Your task to perform on an android device: change notifications settings Image 0: 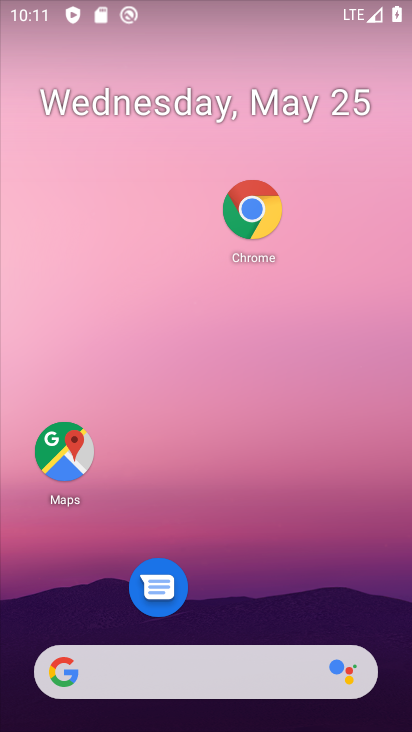
Step 0: drag from (232, 593) to (278, 6)
Your task to perform on an android device: change notifications settings Image 1: 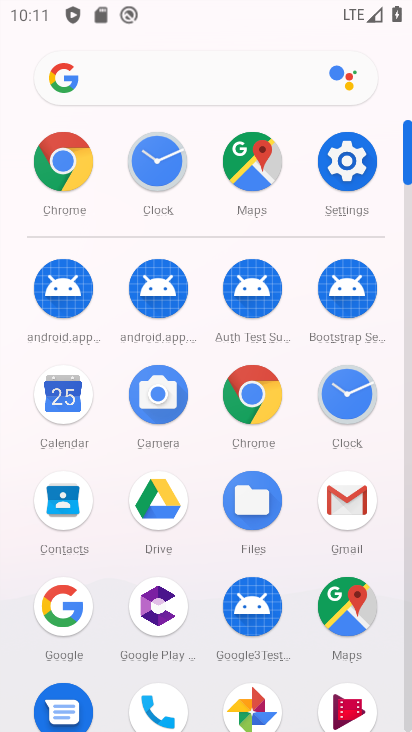
Step 1: click (354, 188)
Your task to perform on an android device: change notifications settings Image 2: 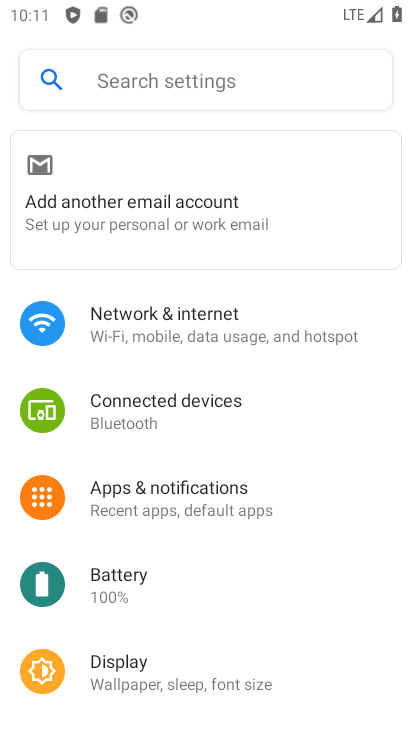
Step 2: click (245, 509)
Your task to perform on an android device: change notifications settings Image 3: 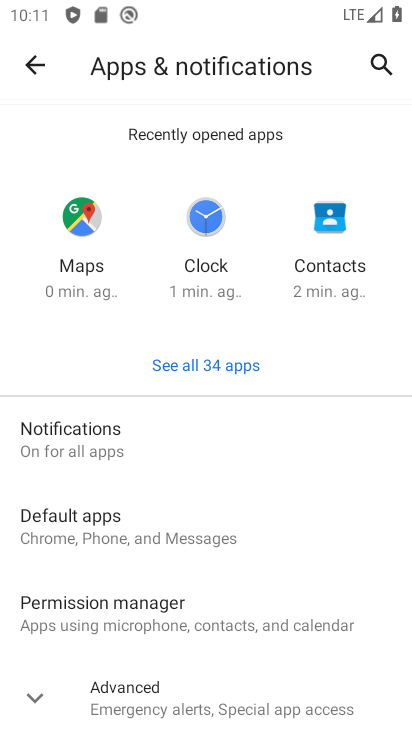
Step 3: click (122, 442)
Your task to perform on an android device: change notifications settings Image 4: 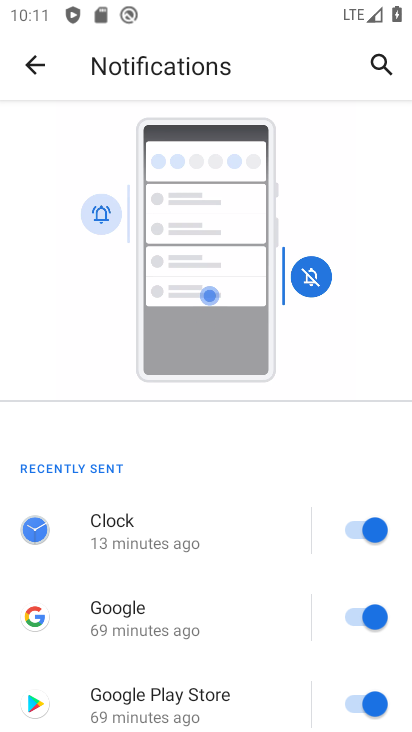
Step 4: drag from (184, 509) to (254, 3)
Your task to perform on an android device: change notifications settings Image 5: 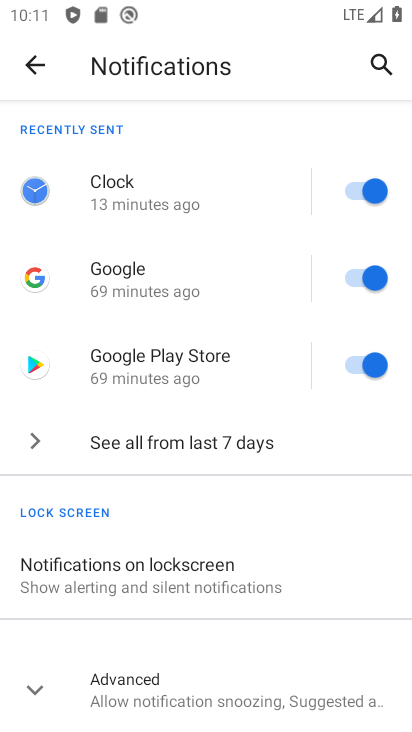
Step 5: click (206, 452)
Your task to perform on an android device: change notifications settings Image 6: 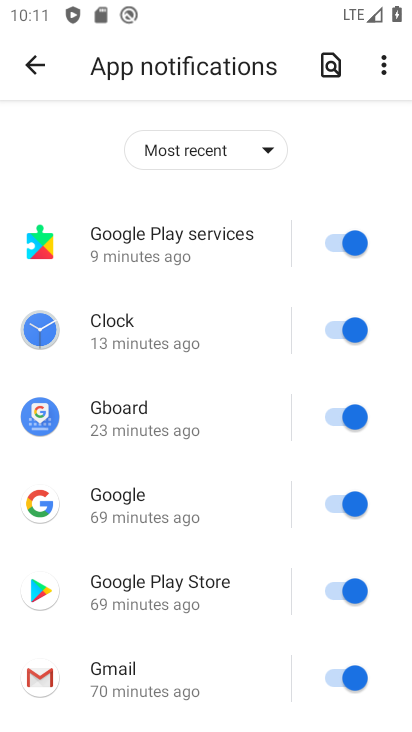
Step 6: click (333, 239)
Your task to perform on an android device: change notifications settings Image 7: 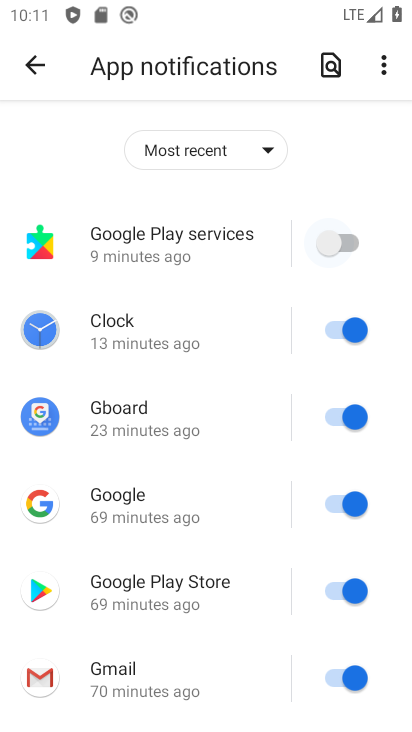
Step 7: click (324, 330)
Your task to perform on an android device: change notifications settings Image 8: 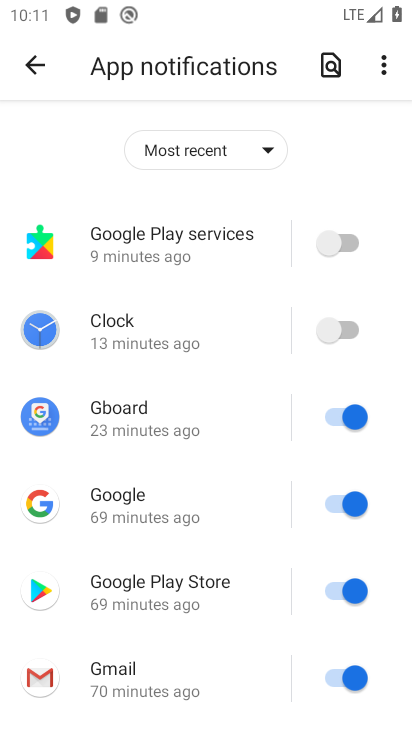
Step 8: click (333, 419)
Your task to perform on an android device: change notifications settings Image 9: 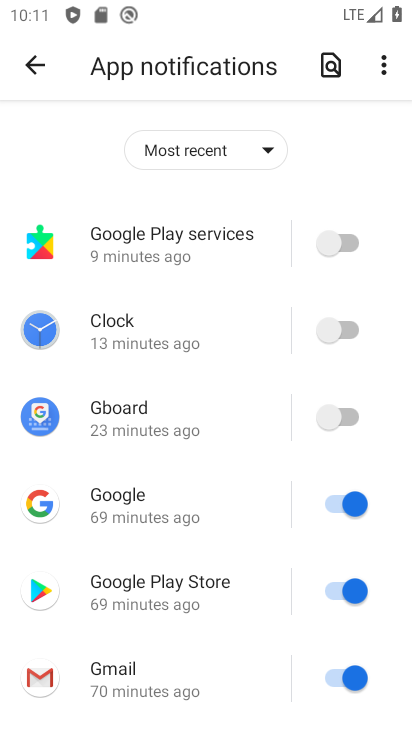
Step 9: click (336, 514)
Your task to perform on an android device: change notifications settings Image 10: 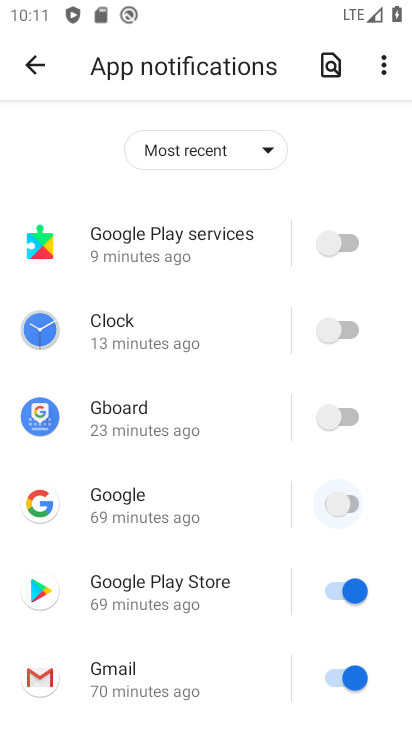
Step 10: click (337, 578)
Your task to perform on an android device: change notifications settings Image 11: 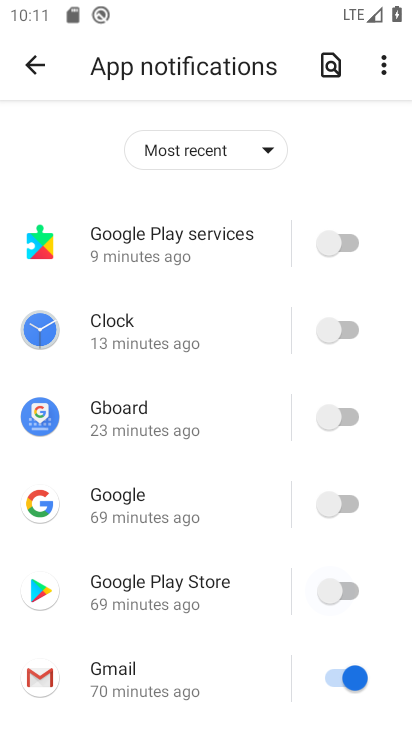
Step 11: click (323, 664)
Your task to perform on an android device: change notifications settings Image 12: 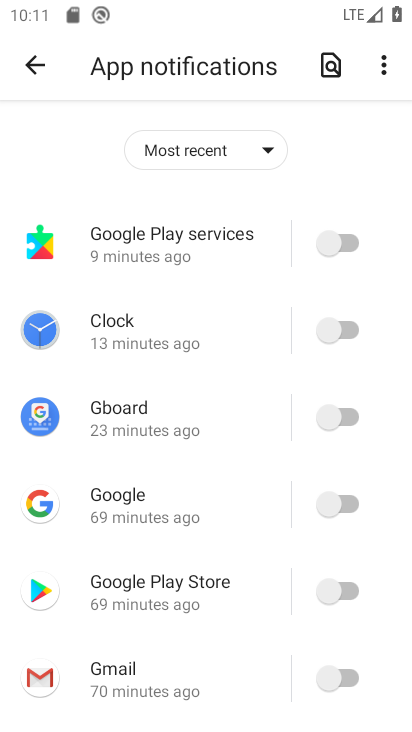
Step 12: drag from (307, 660) to (338, 206)
Your task to perform on an android device: change notifications settings Image 13: 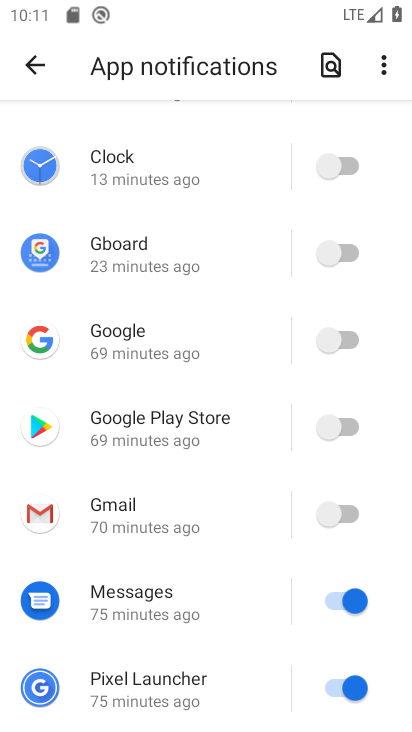
Step 13: click (336, 607)
Your task to perform on an android device: change notifications settings Image 14: 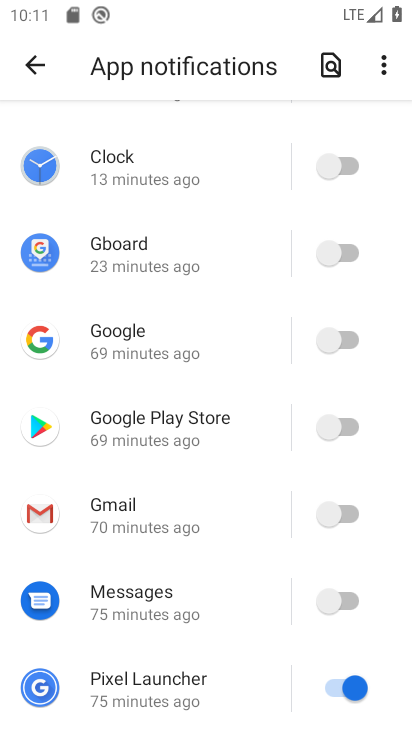
Step 14: click (330, 689)
Your task to perform on an android device: change notifications settings Image 15: 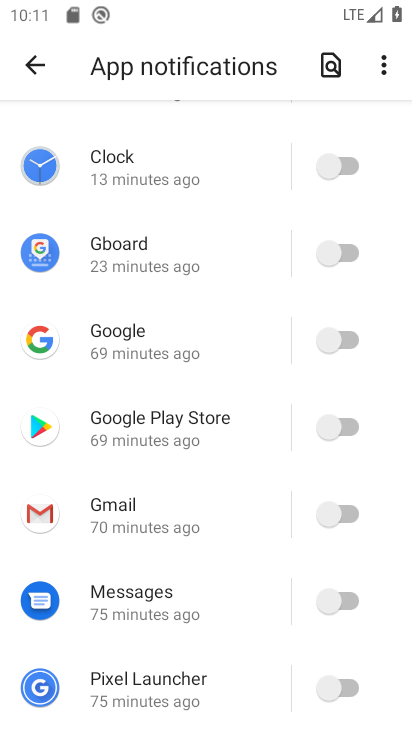
Step 15: task complete